Your task to perform on an android device: clear history in the chrome app Image 0: 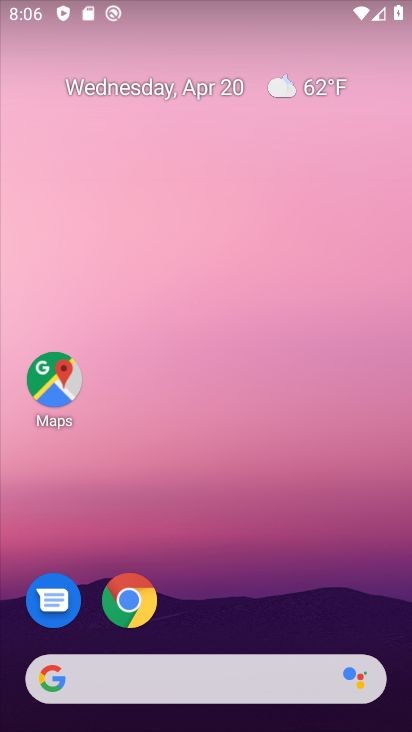
Step 0: click (128, 604)
Your task to perform on an android device: clear history in the chrome app Image 1: 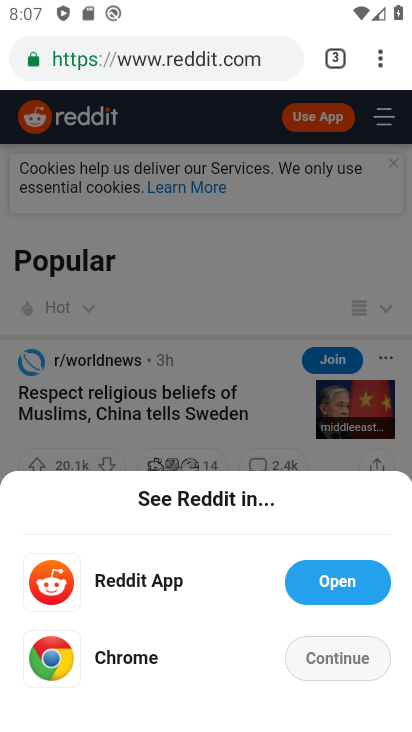
Step 1: click (382, 61)
Your task to perform on an android device: clear history in the chrome app Image 2: 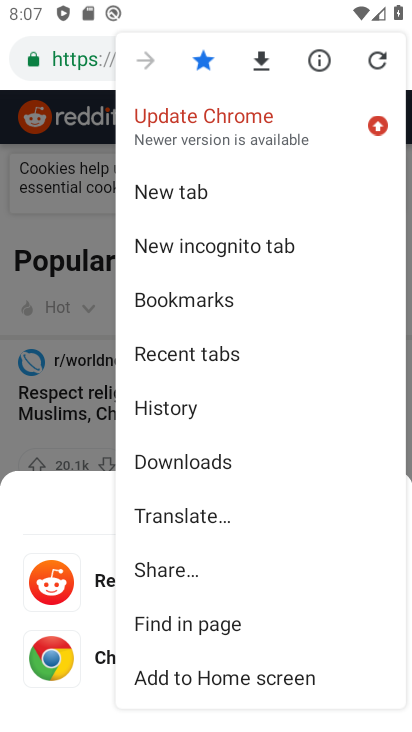
Step 2: click (176, 405)
Your task to perform on an android device: clear history in the chrome app Image 3: 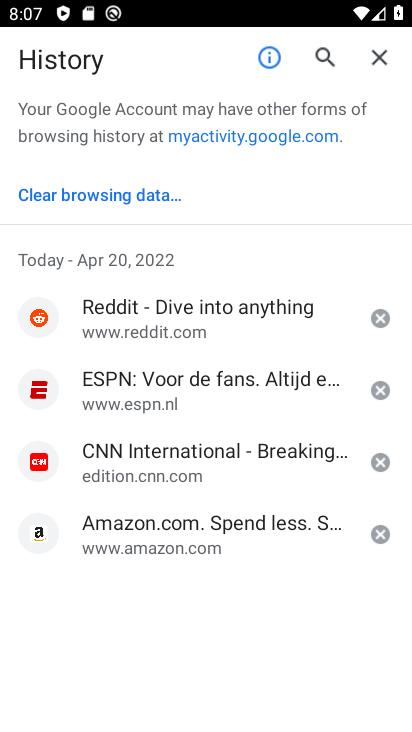
Step 3: click (119, 194)
Your task to perform on an android device: clear history in the chrome app Image 4: 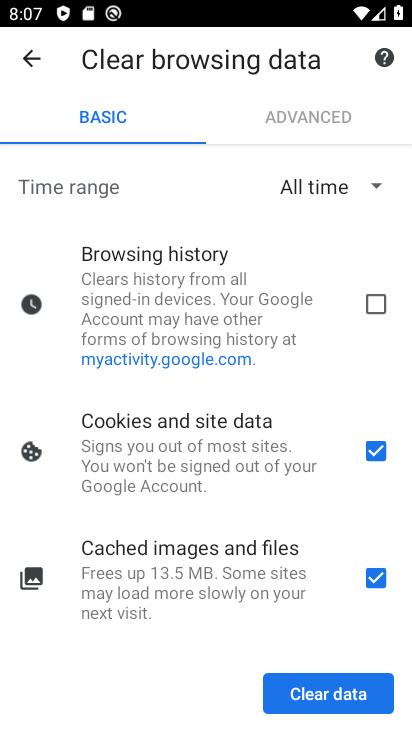
Step 4: click (376, 448)
Your task to perform on an android device: clear history in the chrome app Image 5: 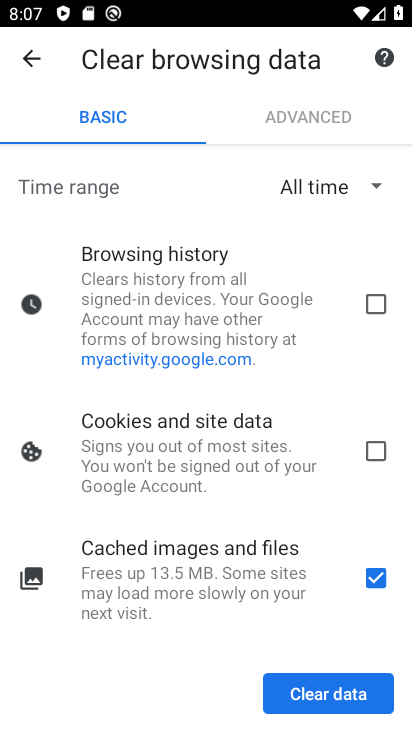
Step 5: click (376, 576)
Your task to perform on an android device: clear history in the chrome app Image 6: 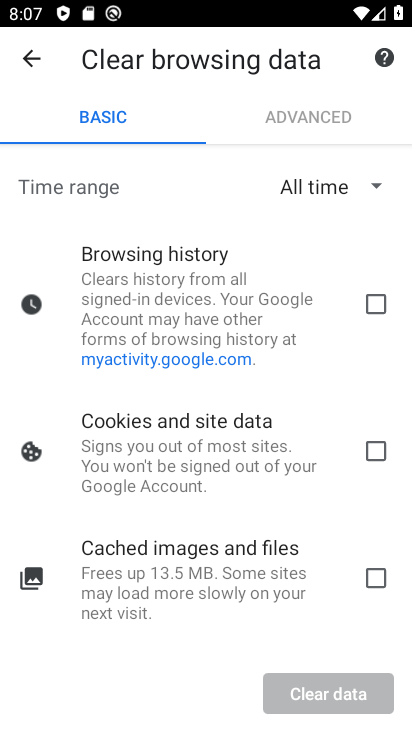
Step 6: click (372, 300)
Your task to perform on an android device: clear history in the chrome app Image 7: 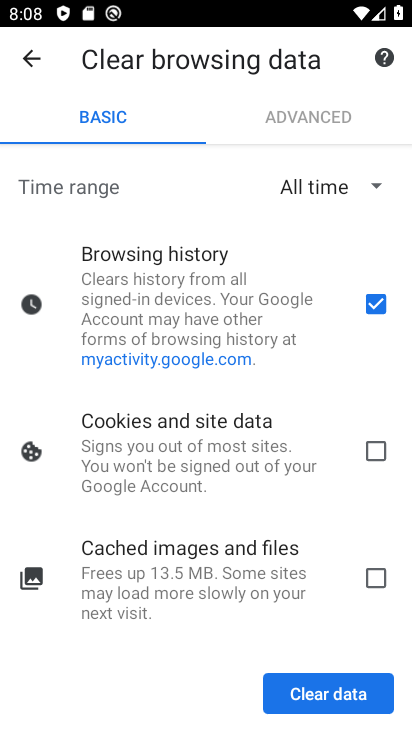
Step 7: click (323, 694)
Your task to perform on an android device: clear history in the chrome app Image 8: 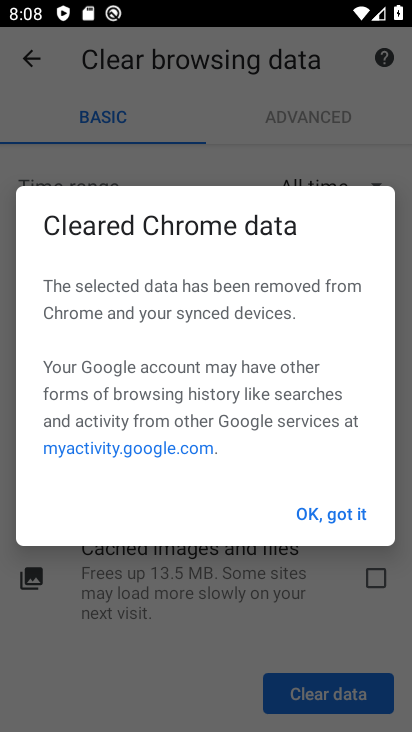
Step 8: click (341, 510)
Your task to perform on an android device: clear history in the chrome app Image 9: 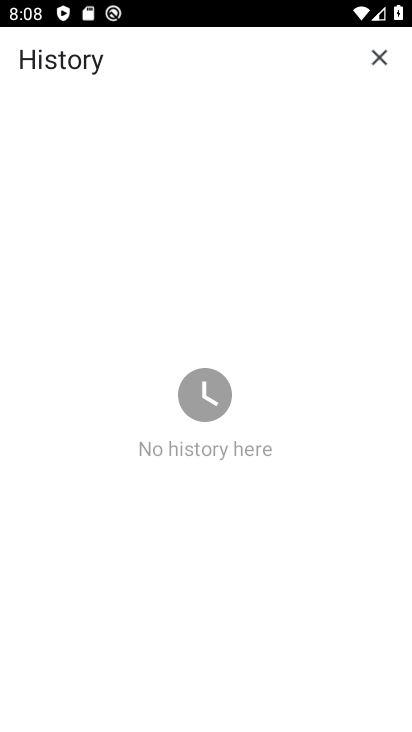
Step 9: task complete